Your task to perform on an android device: open sync settings in chrome Image 0: 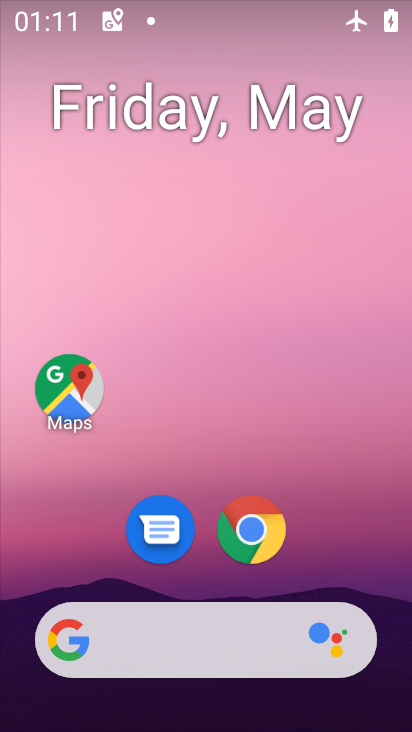
Step 0: drag from (313, 490) to (326, 208)
Your task to perform on an android device: open sync settings in chrome Image 1: 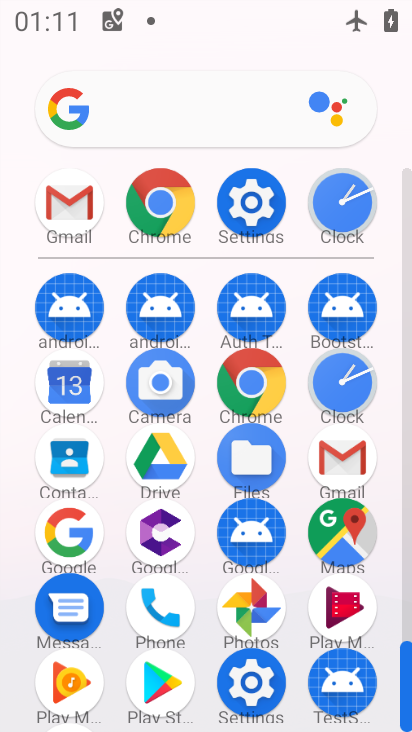
Step 1: click (176, 194)
Your task to perform on an android device: open sync settings in chrome Image 2: 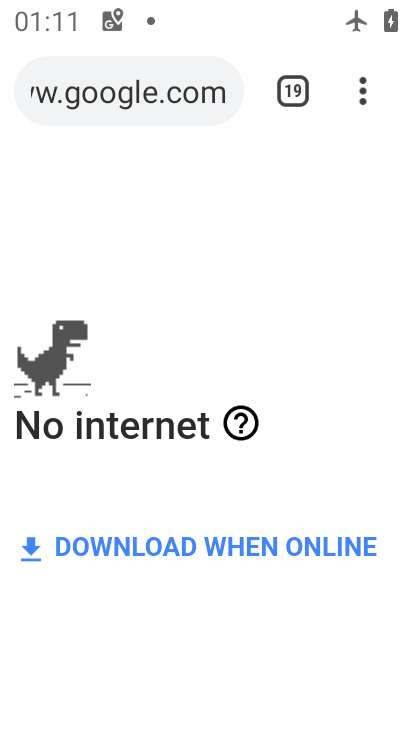
Step 2: click (333, 86)
Your task to perform on an android device: open sync settings in chrome Image 3: 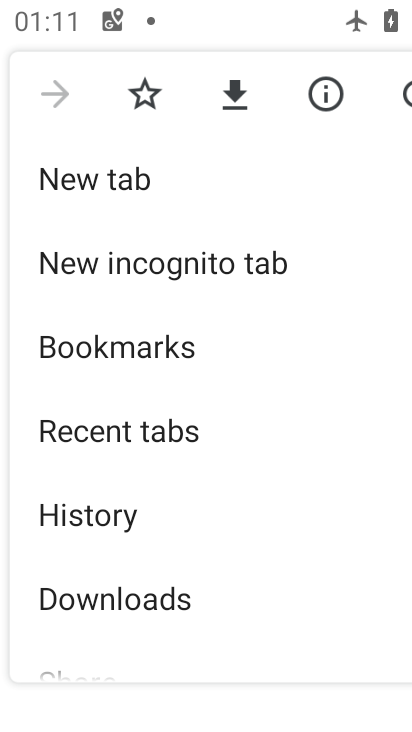
Step 3: drag from (93, 595) to (212, 107)
Your task to perform on an android device: open sync settings in chrome Image 4: 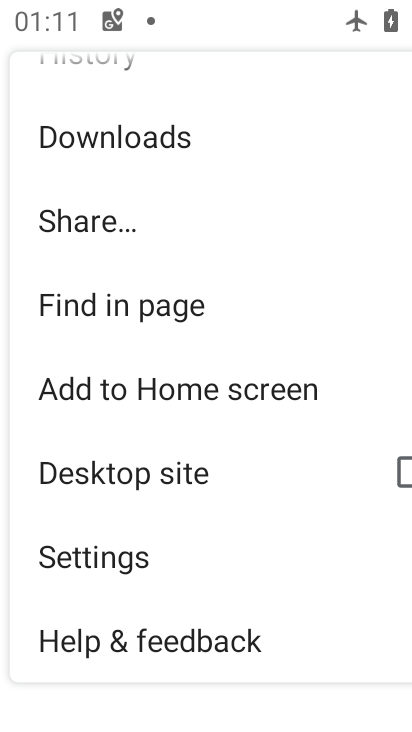
Step 4: click (122, 559)
Your task to perform on an android device: open sync settings in chrome Image 5: 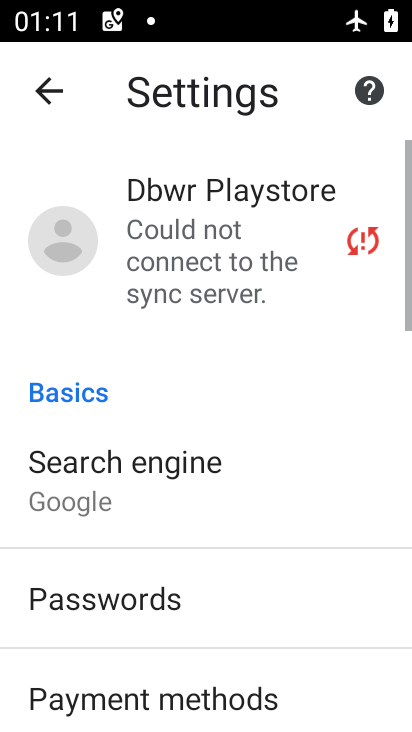
Step 5: click (127, 227)
Your task to perform on an android device: open sync settings in chrome Image 6: 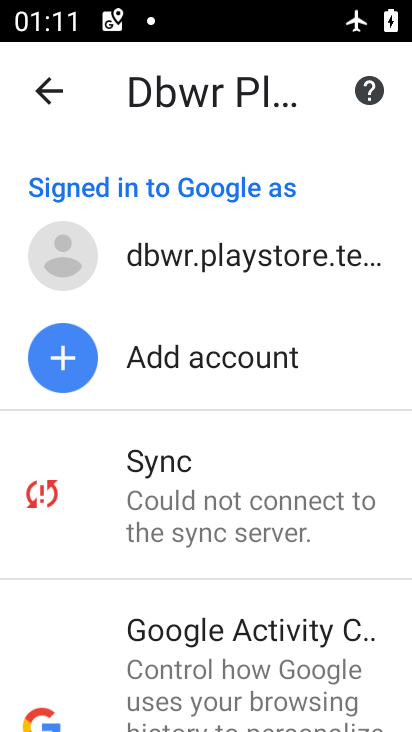
Step 6: click (179, 492)
Your task to perform on an android device: open sync settings in chrome Image 7: 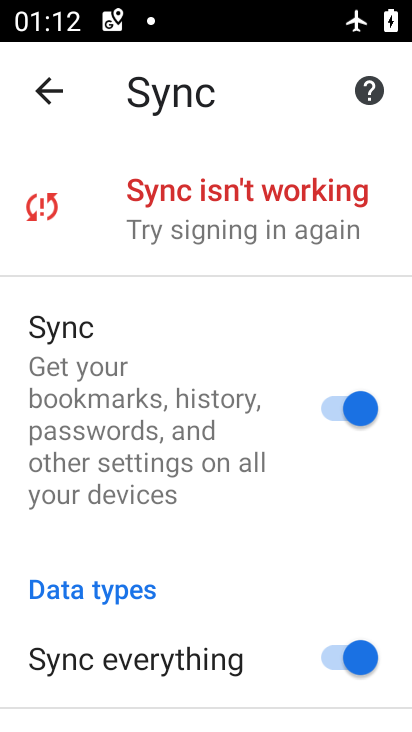
Step 7: task complete